Your task to perform on an android device: Is it going to rain today? Image 0: 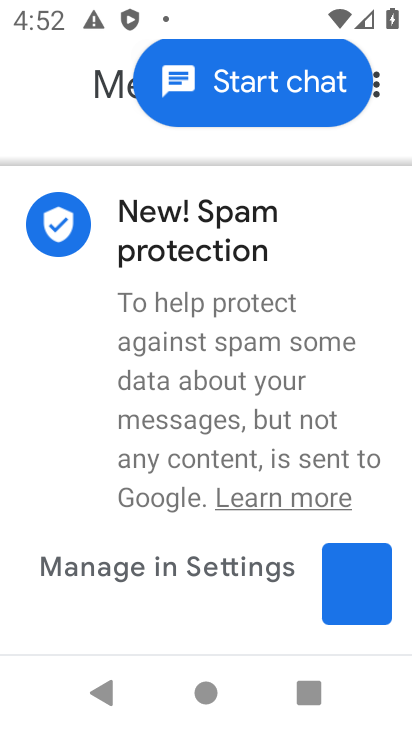
Step 0: task complete